Your task to perform on an android device: Go to Maps Image 0: 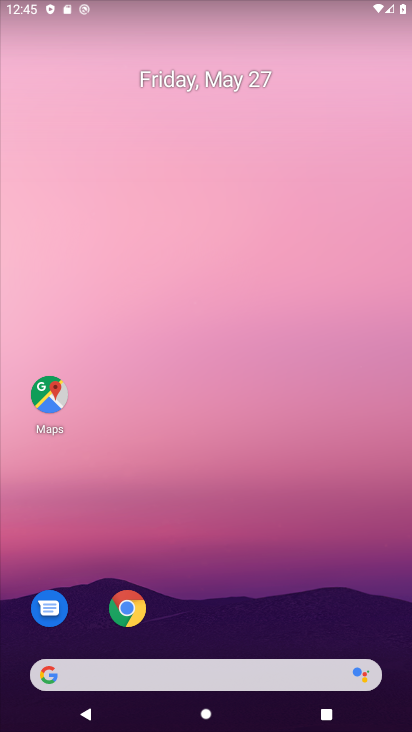
Step 0: click (28, 394)
Your task to perform on an android device: Go to Maps Image 1: 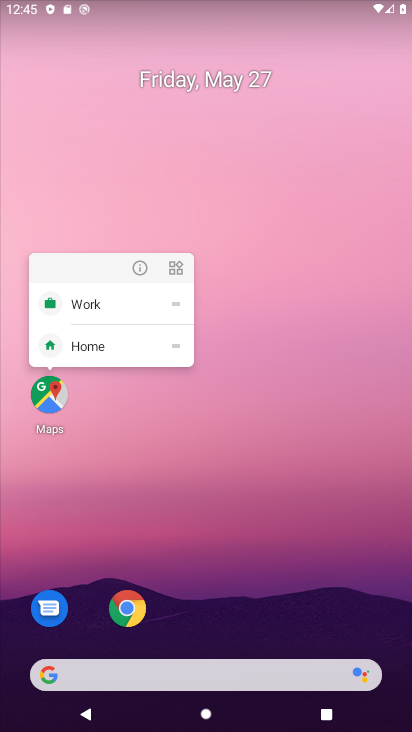
Step 1: click (50, 387)
Your task to perform on an android device: Go to Maps Image 2: 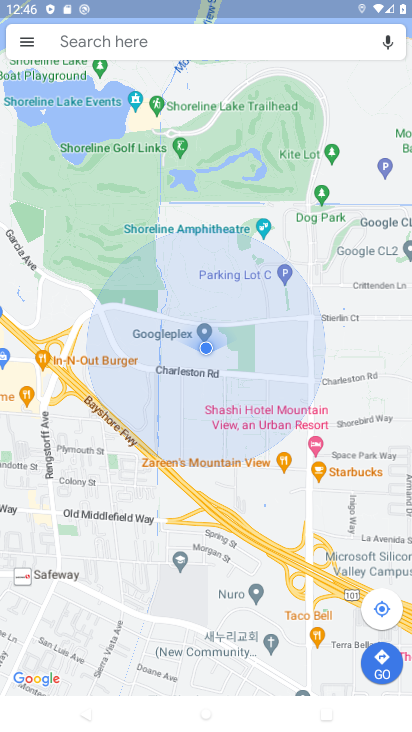
Step 2: task complete